Your task to perform on an android device: See recent photos Image 0: 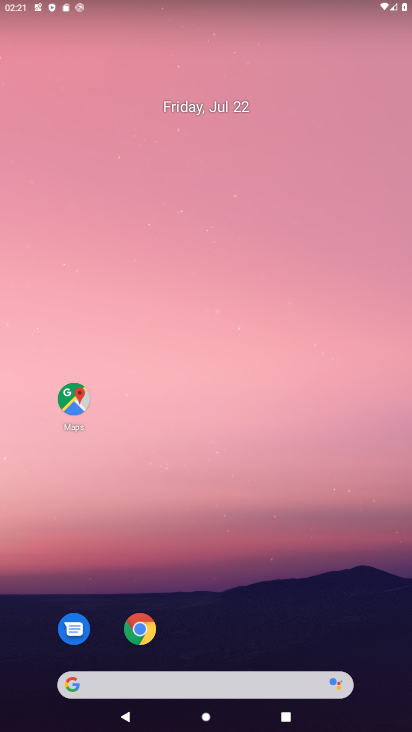
Step 0: drag from (76, 508) to (233, 54)
Your task to perform on an android device: See recent photos Image 1: 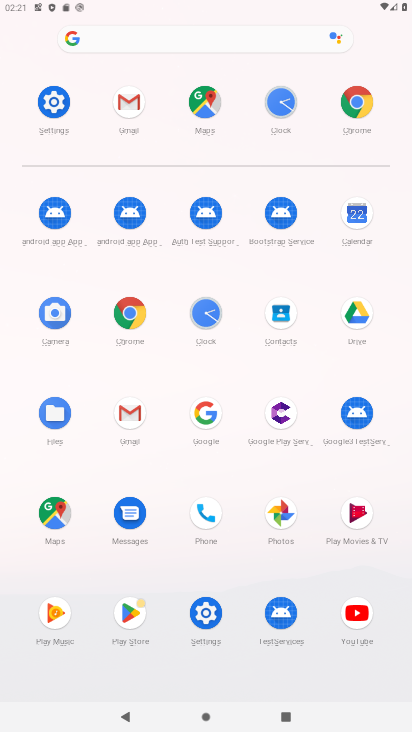
Step 1: click (275, 512)
Your task to perform on an android device: See recent photos Image 2: 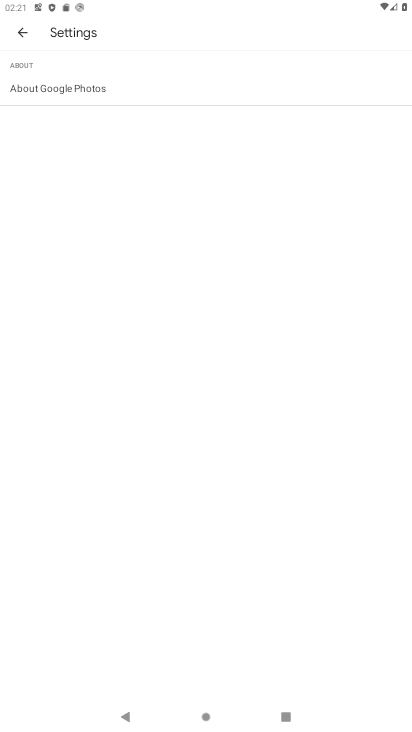
Step 2: click (13, 28)
Your task to perform on an android device: See recent photos Image 3: 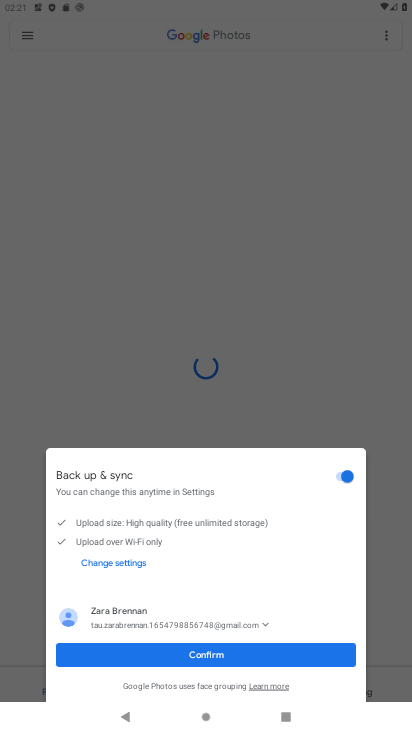
Step 3: click (221, 662)
Your task to perform on an android device: See recent photos Image 4: 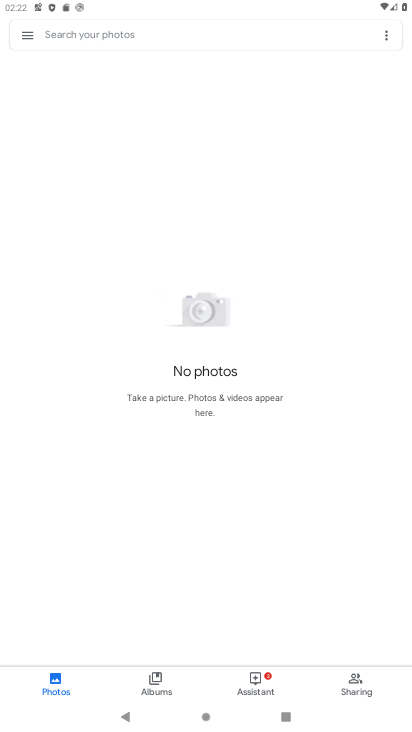
Step 4: task complete